Your task to perform on an android device: Go to notification settings Image 0: 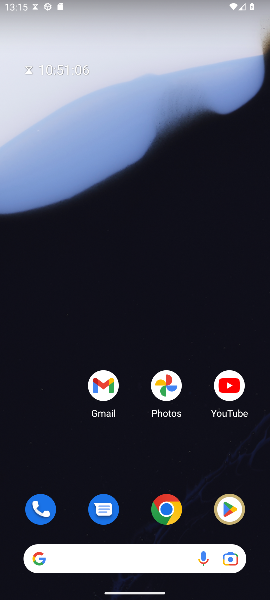
Step 0: press home button
Your task to perform on an android device: Go to notification settings Image 1: 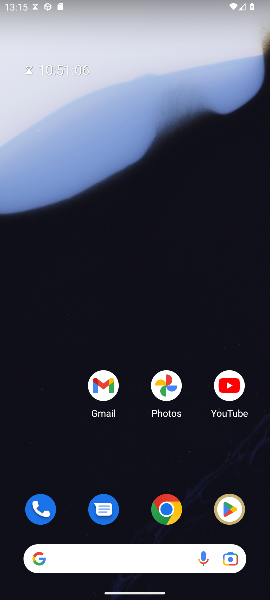
Step 1: drag from (135, 520) to (177, 58)
Your task to perform on an android device: Go to notification settings Image 2: 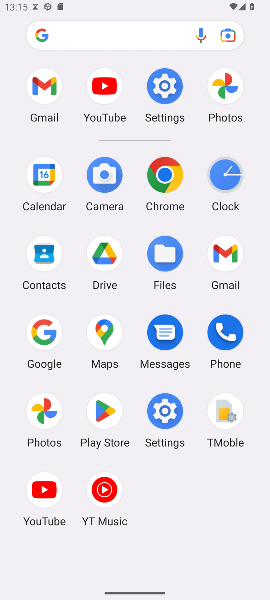
Step 2: click (173, 97)
Your task to perform on an android device: Go to notification settings Image 3: 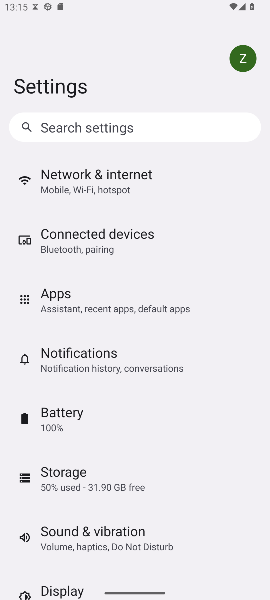
Step 3: click (82, 360)
Your task to perform on an android device: Go to notification settings Image 4: 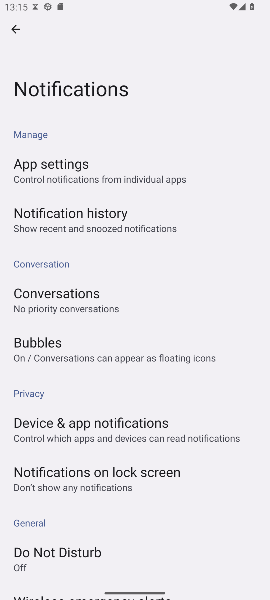
Step 4: task complete